Your task to perform on an android device: turn on location history Image 0: 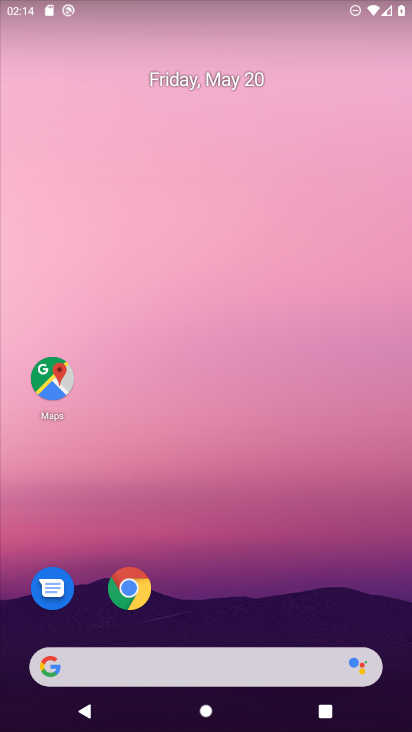
Step 0: click (55, 379)
Your task to perform on an android device: turn on location history Image 1: 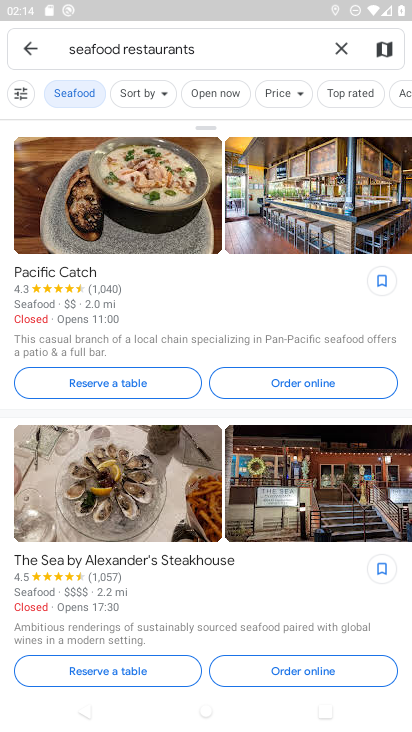
Step 1: click (336, 43)
Your task to perform on an android device: turn on location history Image 2: 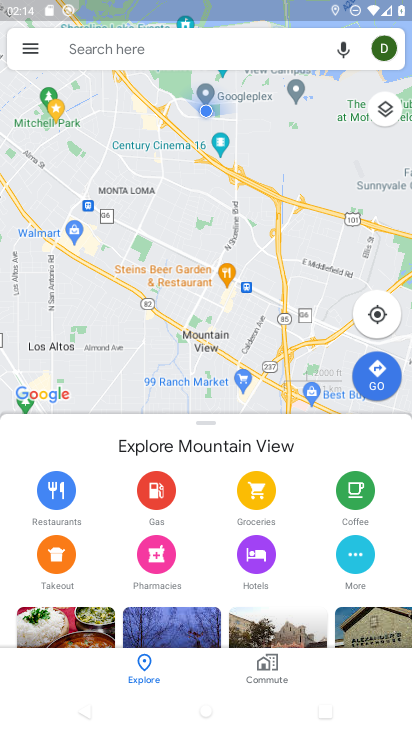
Step 2: click (28, 47)
Your task to perform on an android device: turn on location history Image 3: 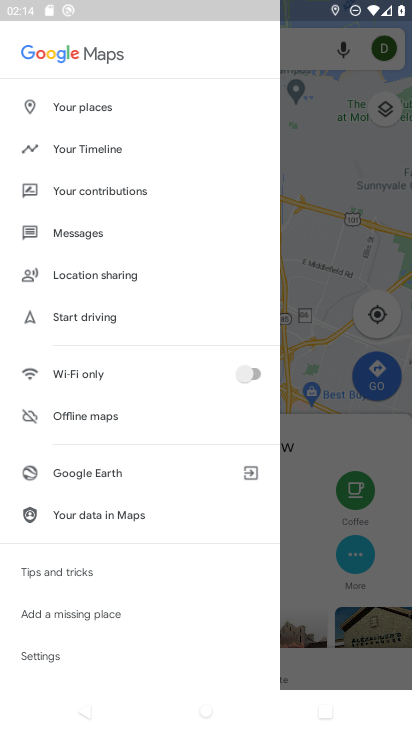
Step 3: click (38, 648)
Your task to perform on an android device: turn on location history Image 4: 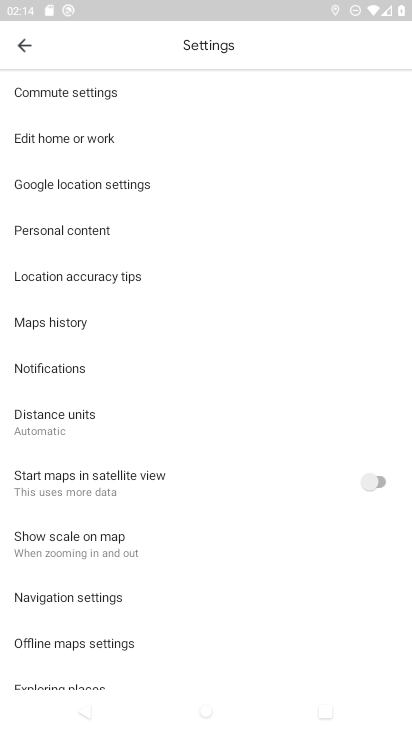
Step 4: click (55, 227)
Your task to perform on an android device: turn on location history Image 5: 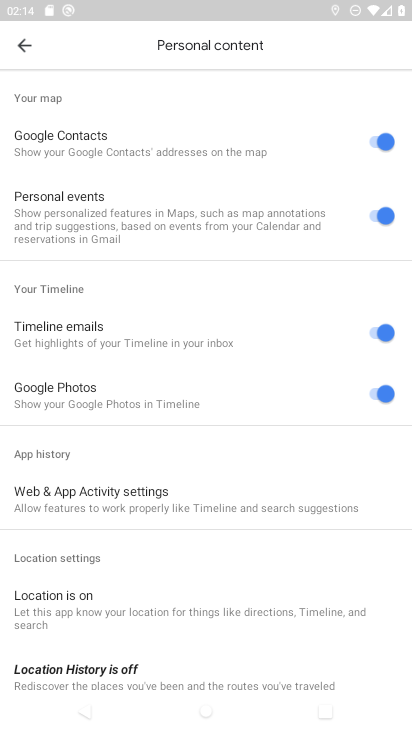
Step 5: drag from (262, 622) to (259, 257)
Your task to perform on an android device: turn on location history Image 6: 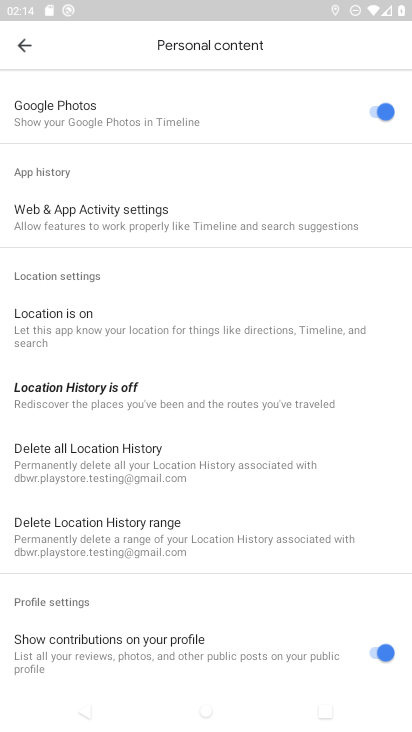
Step 6: click (84, 392)
Your task to perform on an android device: turn on location history Image 7: 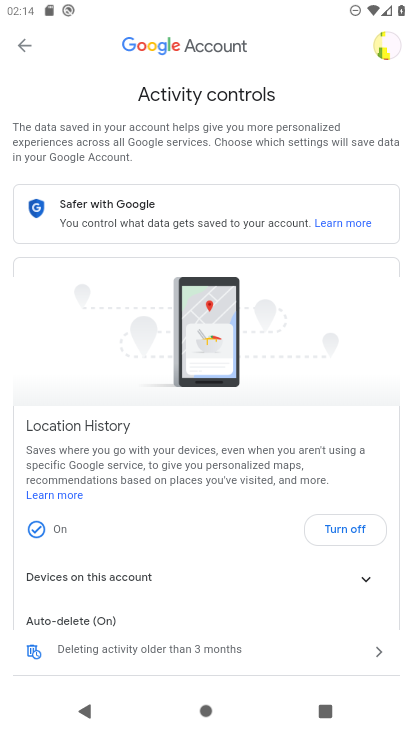
Step 7: task complete